Your task to perform on an android device: turn vacation reply on in the gmail app Image 0: 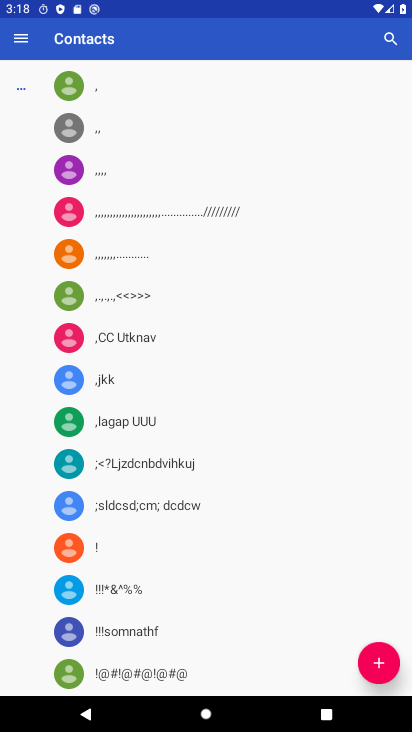
Step 0: press home button
Your task to perform on an android device: turn vacation reply on in the gmail app Image 1: 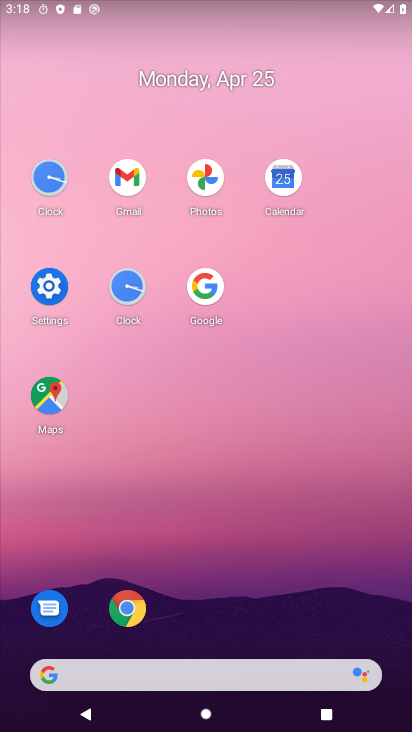
Step 1: click (133, 183)
Your task to perform on an android device: turn vacation reply on in the gmail app Image 2: 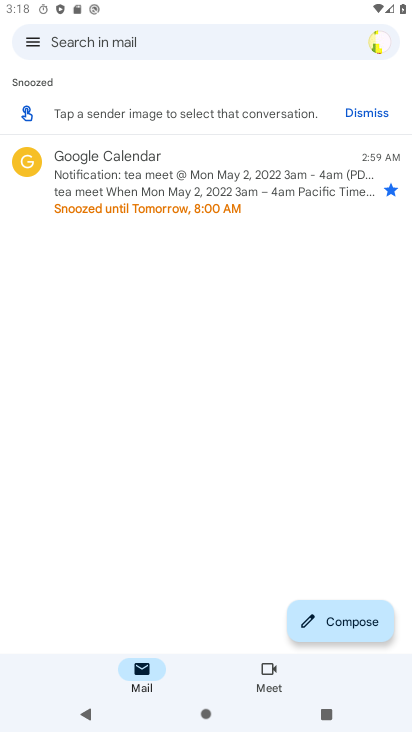
Step 2: click (43, 42)
Your task to perform on an android device: turn vacation reply on in the gmail app Image 3: 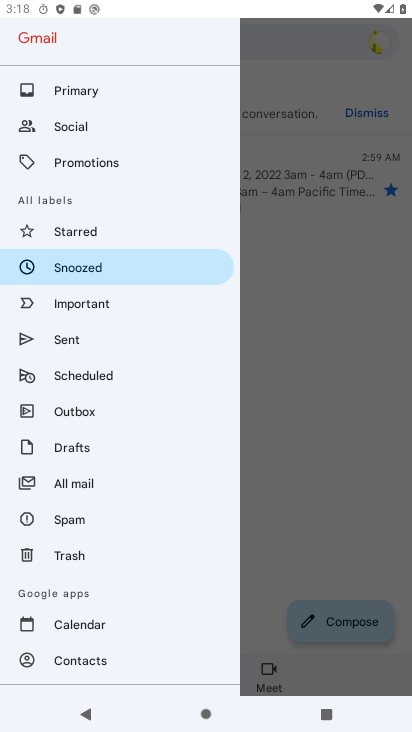
Step 3: drag from (137, 478) to (140, 121)
Your task to perform on an android device: turn vacation reply on in the gmail app Image 4: 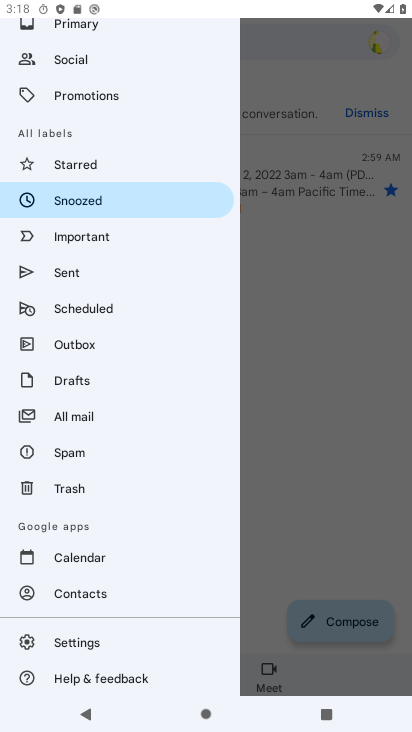
Step 4: click (87, 631)
Your task to perform on an android device: turn vacation reply on in the gmail app Image 5: 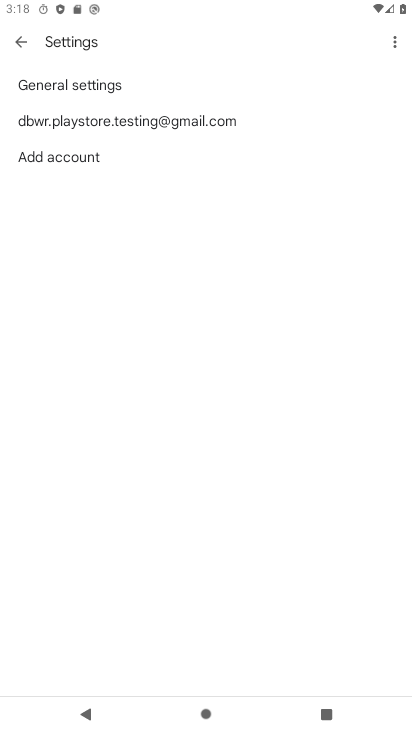
Step 5: click (132, 115)
Your task to perform on an android device: turn vacation reply on in the gmail app Image 6: 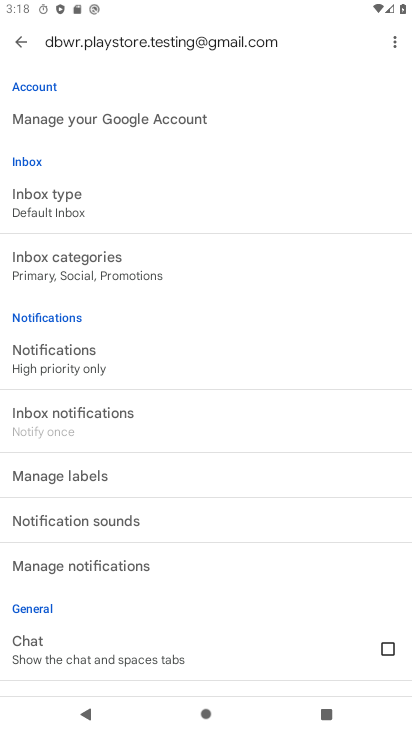
Step 6: drag from (190, 531) to (217, 98)
Your task to perform on an android device: turn vacation reply on in the gmail app Image 7: 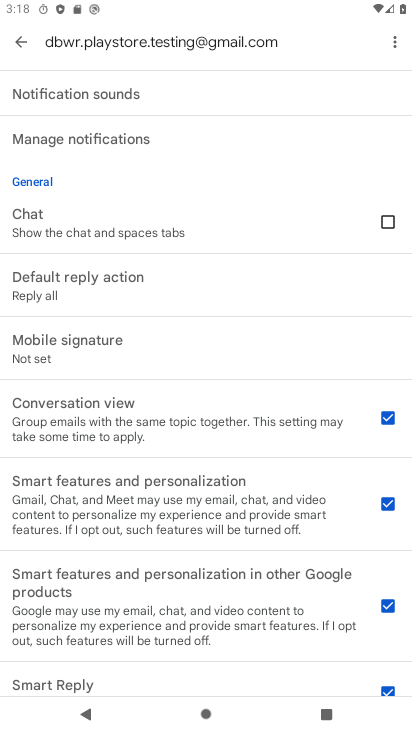
Step 7: drag from (197, 495) to (200, 64)
Your task to perform on an android device: turn vacation reply on in the gmail app Image 8: 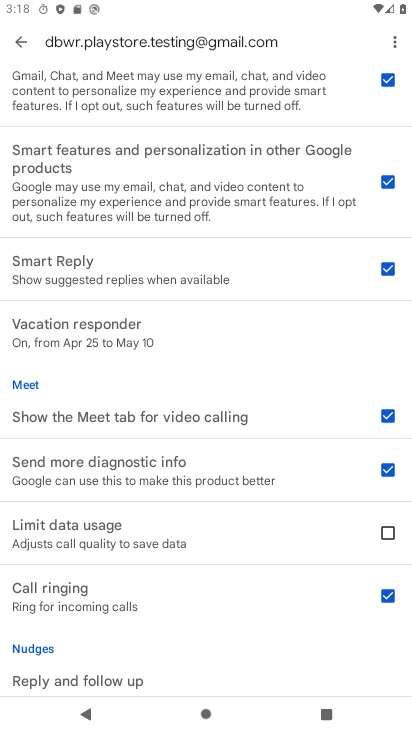
Step 8: drag from (174, 631) to (175, 199)
Your task to perform on an android device: turn vacation reply on in the gmail app Image 9: 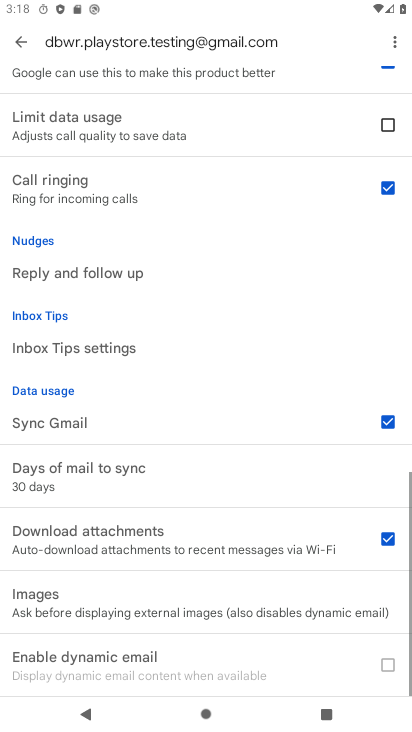
Step 9: drag from (171, 132) to (166, 477)
Your task to perform on an android device: turn vacation reply on in the gmail app Image 10: 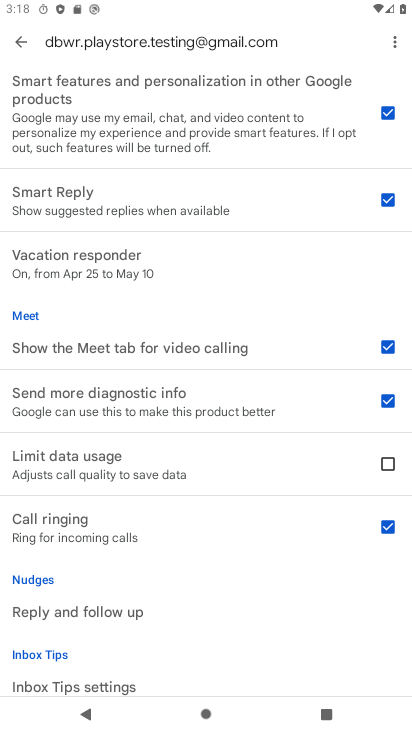
Step 10: click (152, 246)
Your task to perform on an android device: turn vacation reply on in the gmail app Image 11: 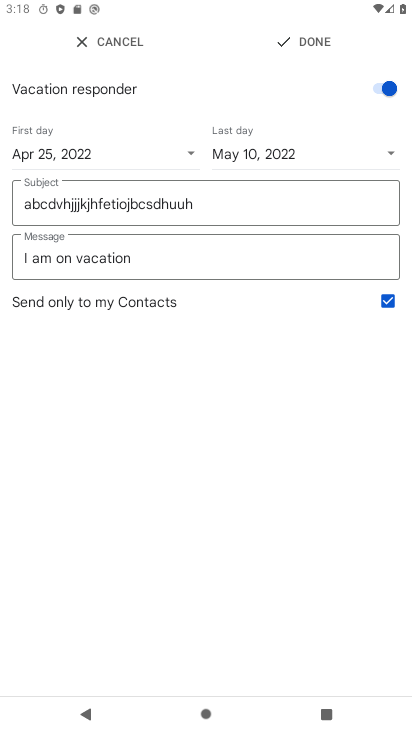
Step 11: click (314, 41)
Your task to perform on an android device: turn vacation reply on in the gmail app Image 12: 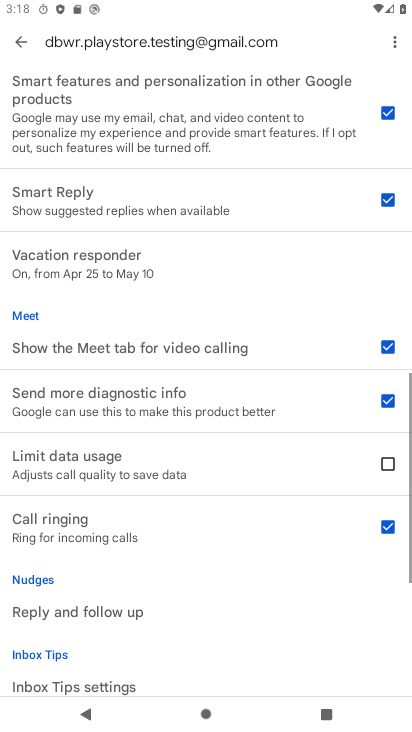
Step 12: task complete